Your task to perform on an android device: turn on showing notifications on the lock screen Image 0: 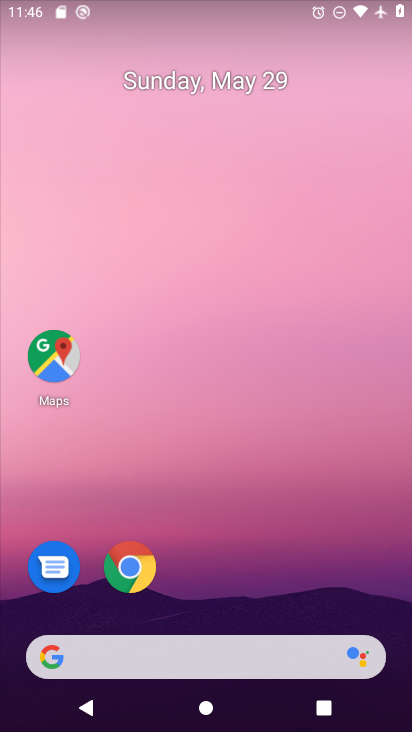
Step 0: drag from (377, 618) to (299, 24)
Your task to perform on an android device: turn on showing notifications on the lock screen Image 1: 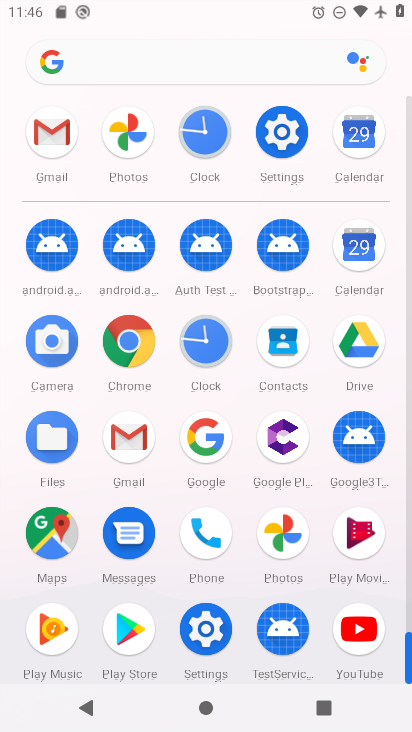
Step 1: click (207, 634)
Your task to perform on an android device: turn on showing notifications on the lock screen Image 2: 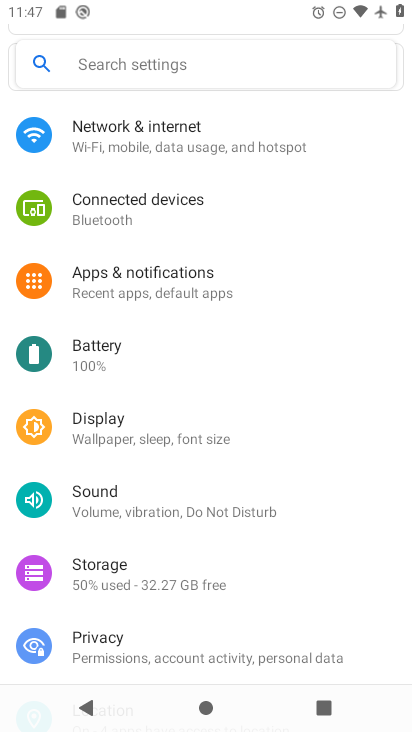
Step 2: click (138, 281)
Your task to perform on an android device: turn on showing notifications on the lock screen Image 3: 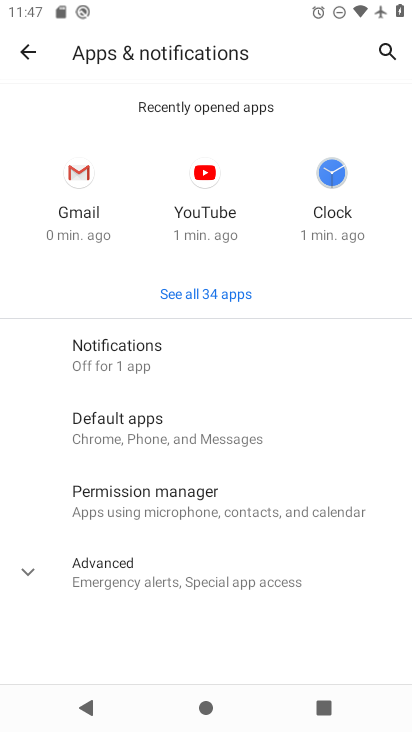
Step 3: click (112, 369)
Your task to perform on an android device: turn on showing notifications on the lock screen Image 4: 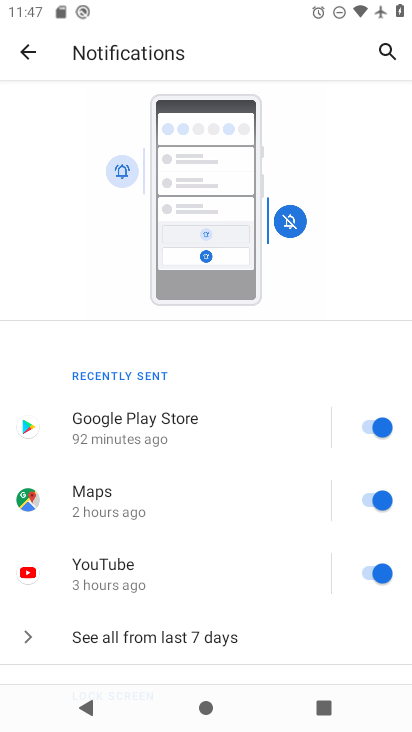
Step 4: drag from (259, 660) to (254, 159)
Your task to perform on an android device: turn on showing notifications on the lock screen Image 5: 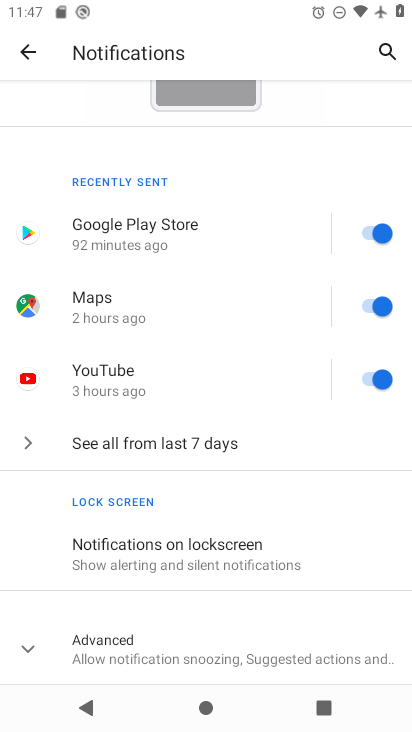
Step 5: click (184, 539)
Your task to perform on an android device: turn on showing notifications on the lock screen Image 6: 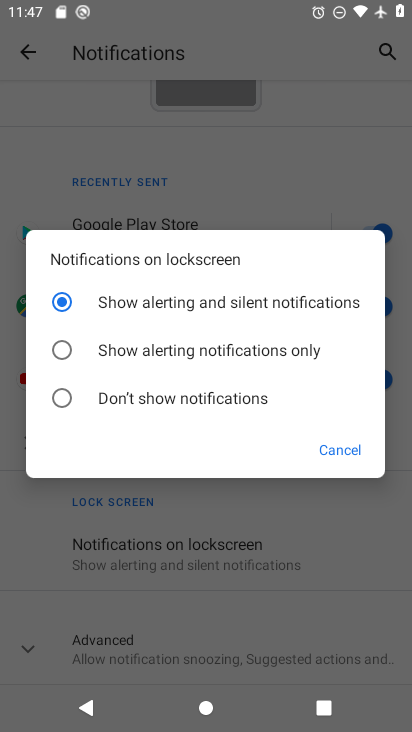
Step 6: task complete